Your task to perform on an android device: Go to Amazon Image 0: 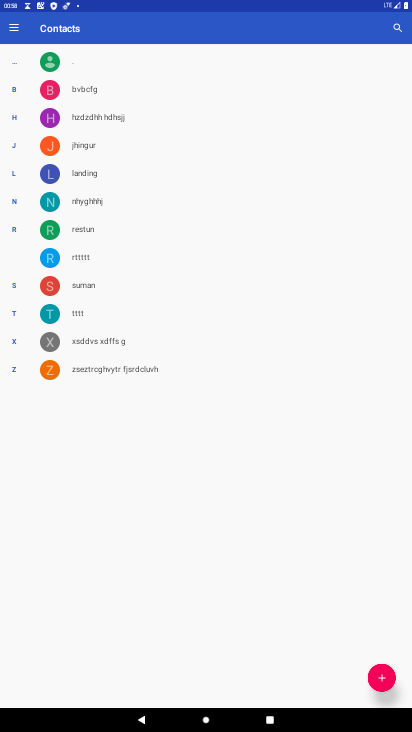
Step 0: press home button
Your task to perform on an android device: Go to Amazon Image 1: 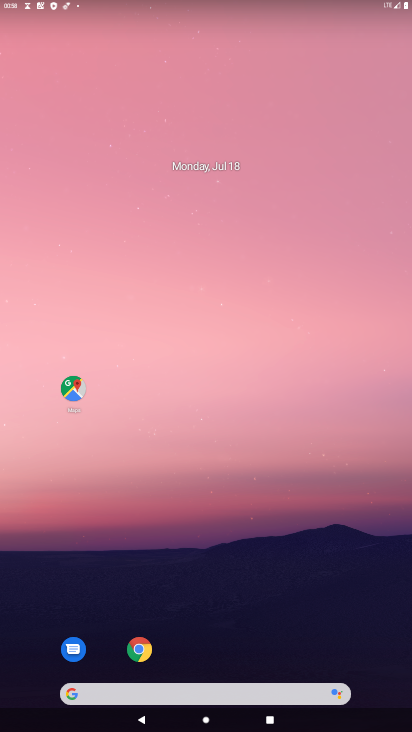
Step 1: click (141, 649)
Your task to perform on an android device: Go to Amazon Image 2: 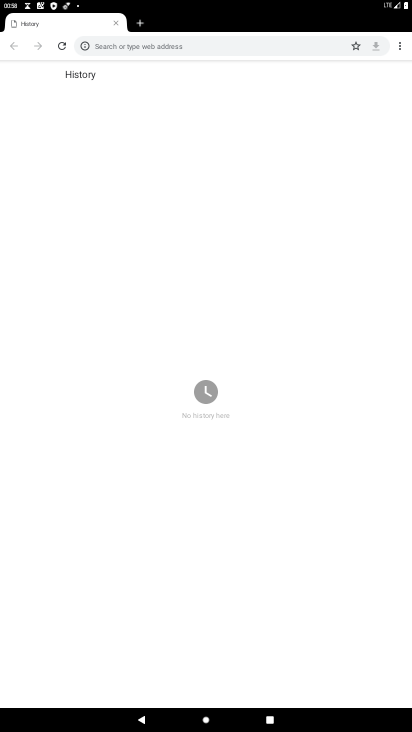
Step 2: press back button
Your task to perform on an android device: Go to Amazon Image 3: 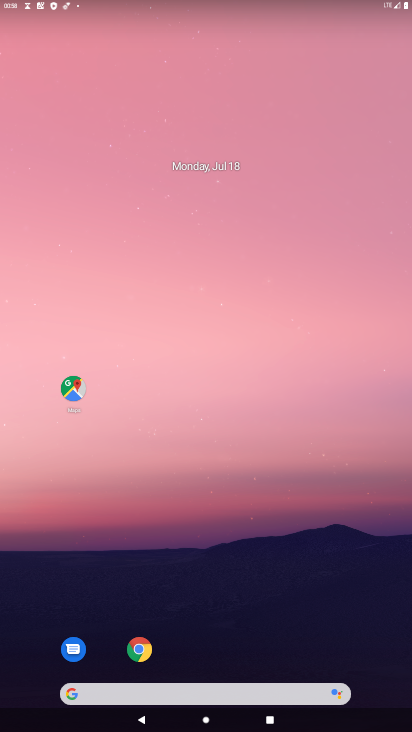
Step 3: click (147, 643)
Your task to perform on an android device: Go to Amazon Image 4: 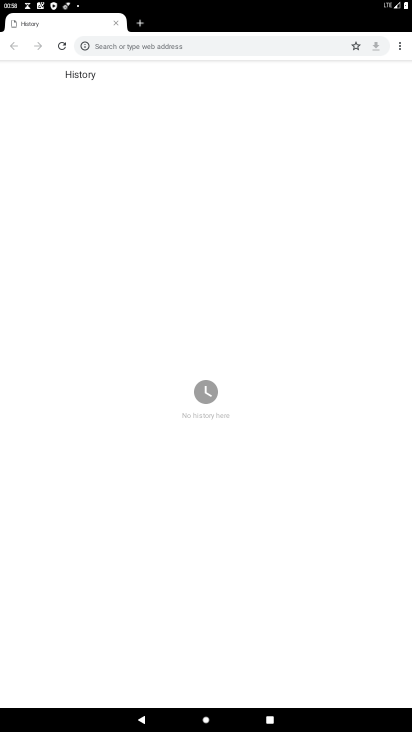
Step 4: click (396, 47)
Your task to perform on an android device: Go to Amazon Image 5: 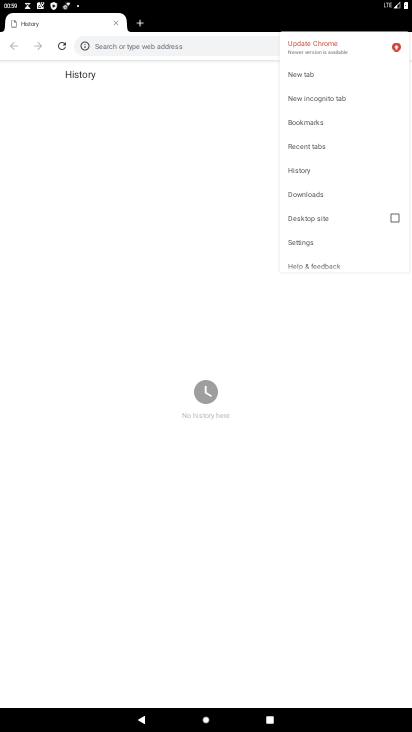
Step 5: click (319, 74)
Your task to perform on an android device: Go to Amazon Image 6: 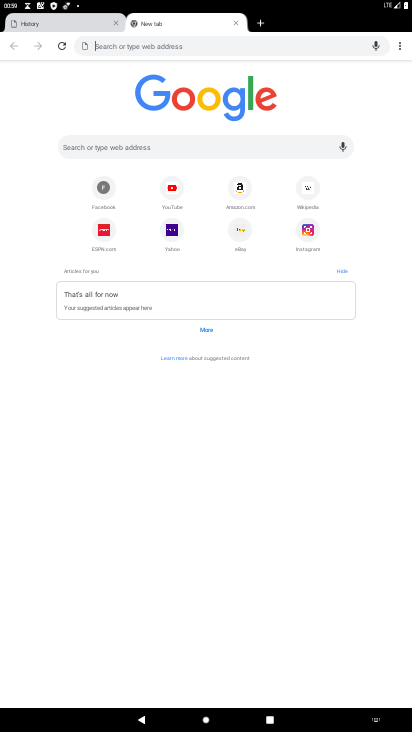
Step 6: click (244, 191)
Your task to perform on an android device: Go to Amazon Image 7: 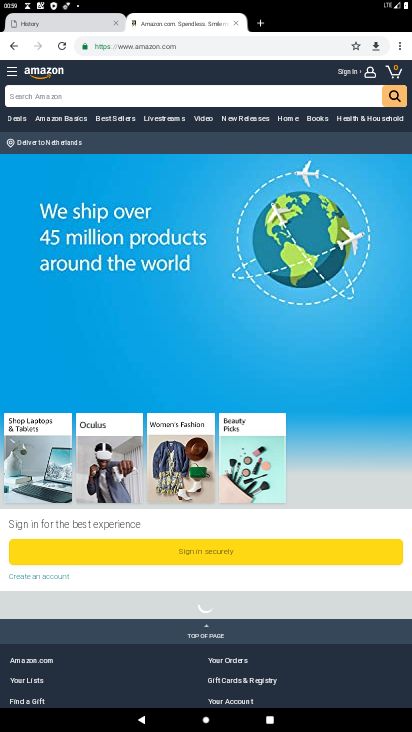
Step 7: task complete